Your task to perform on an android device: toggle translation in the chrome app Image 0: 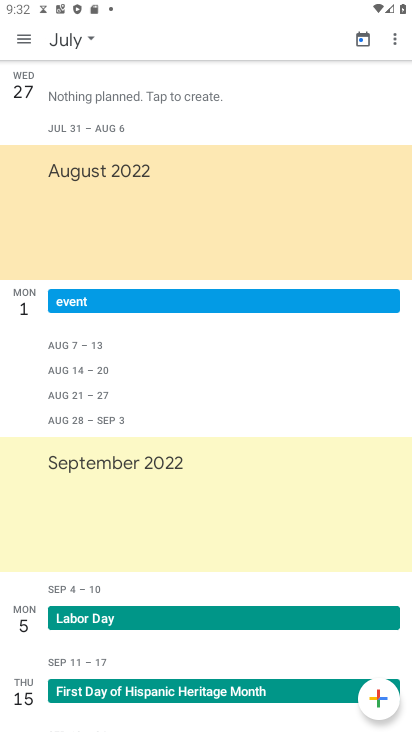
Step 0: press home button
Your task to perform on an android device: toggle translation in the chrome app Image 1: 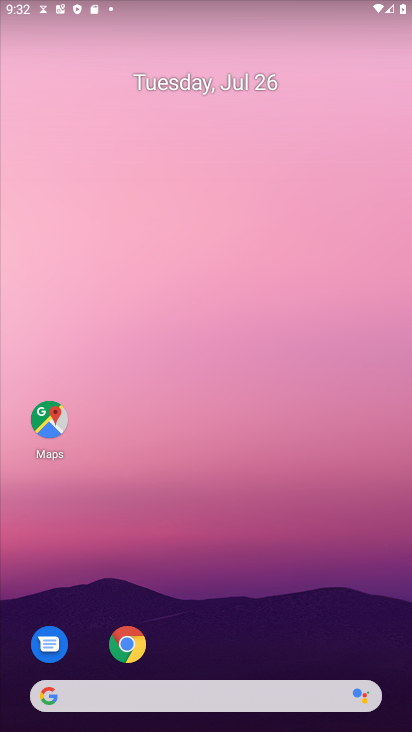
Step 1: click (134, 646)
Your task to perform on an android device: toggle translation in the chrome app Image 2: 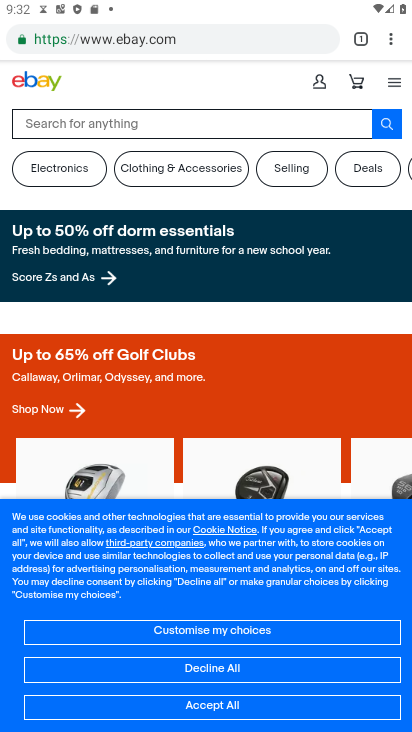
Step 2: click (389, 36)
Your task to perform on an android device: toggle translation in the chrome app Image 3: 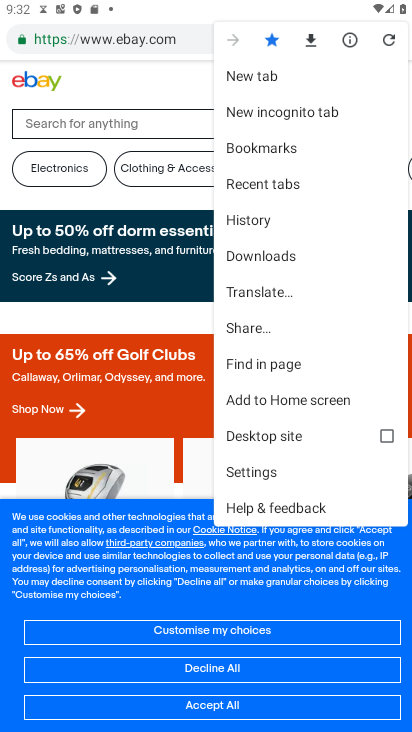
Step 3: click (246, 472)
Your task to perform on an android device: toggle translation in the chrome app Image 4: 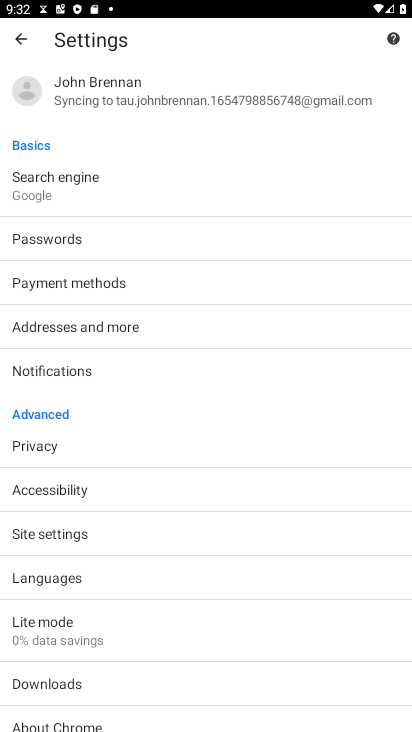
Step 4: click (62, 577)
Your task to perform on an android device: toggle translation in the chrome app Image 5: 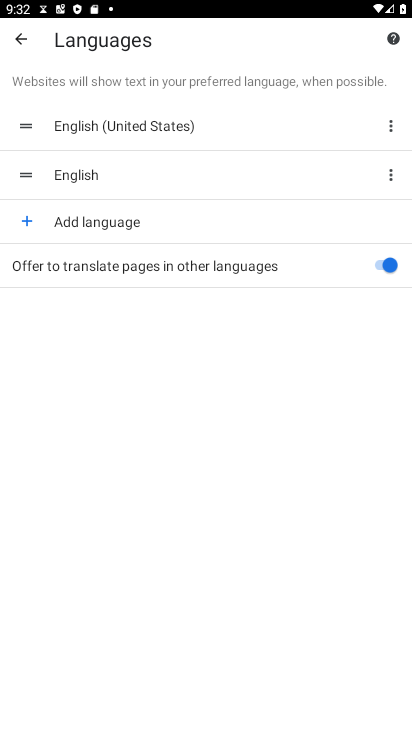
Step 5: click (360, 270)
Your task to perform on an android device: toggle translation in the chrome app Image 6: 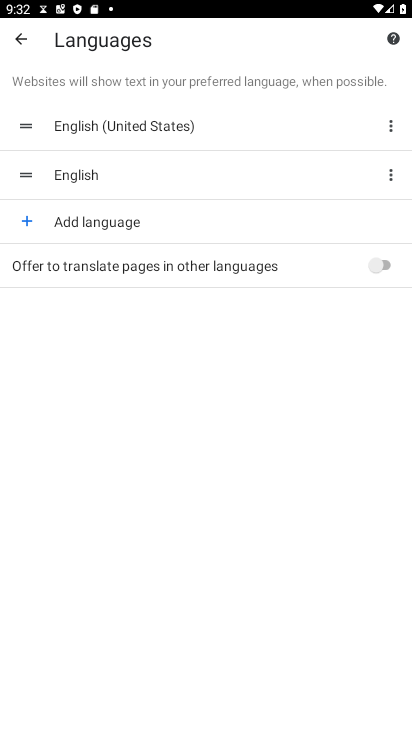
Step 6: task complete